Your task to perform on an android device: delete the emails in spam in the gmail app Image 0: 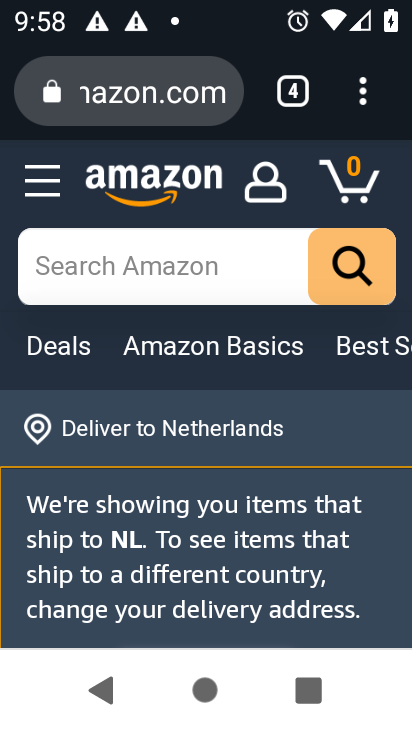
Step 0: click (365, 98)
Your task to perform on an android device: delete the emails in spam in the gmail app Image 1: 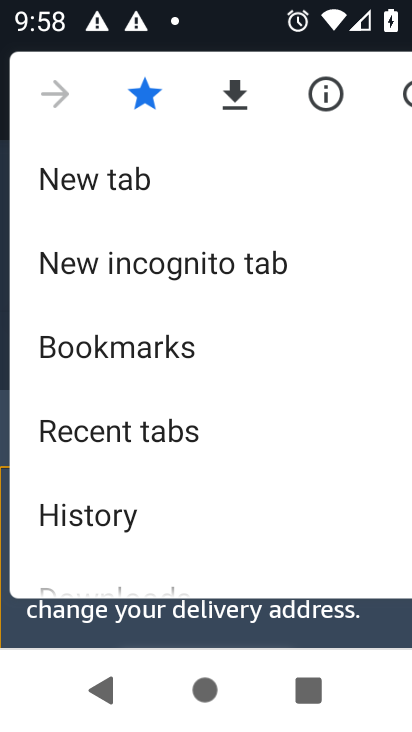
Step 1: click (123, 504)
Your task to perform on an android device: delete the emails in spam in the gmail app Image 2: 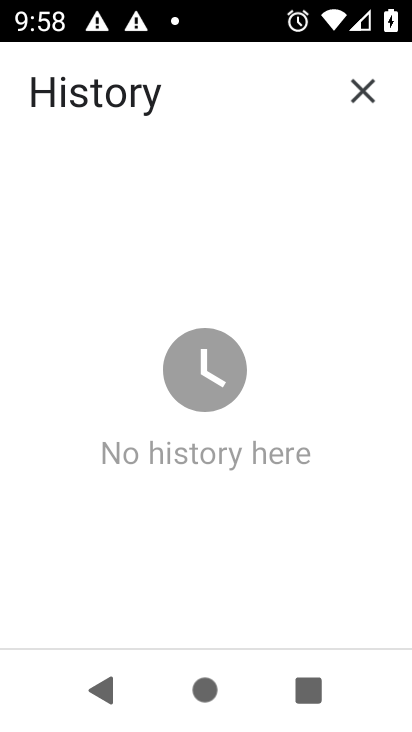
Step 2: press home button
Your task to perform on an android device: delete the emails in spam in the gmail app Image 3: 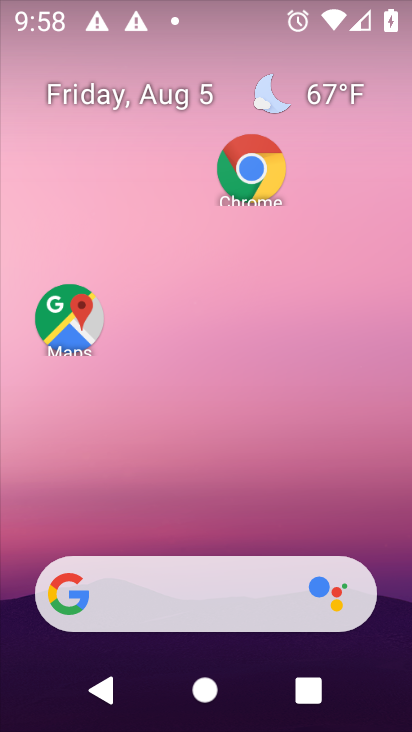
Step 3: drag from (187, 510) to (150, 168)
Your task to perform on an android device: delete the emails in spam in the gmail app Image 4: 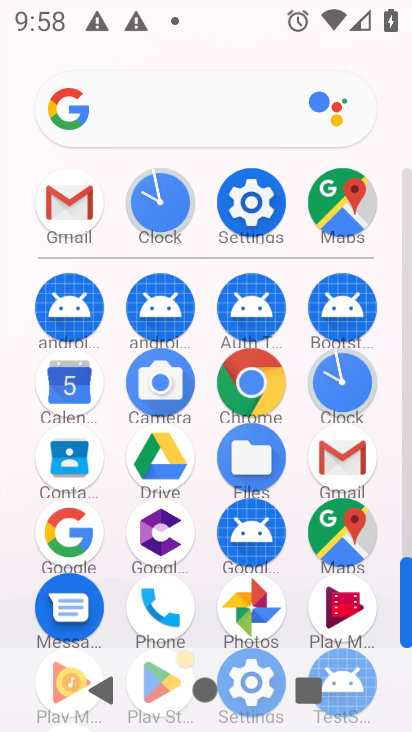
Step 4: click (77, 196)
Your task to perform on an android device: delete the emails in spam in the gmail app Image 5: 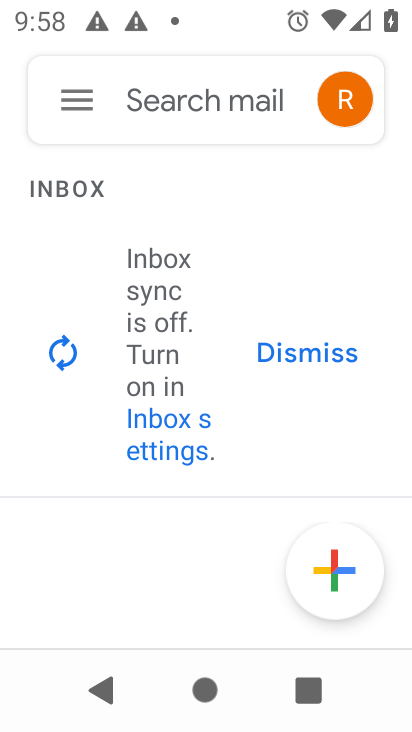
Step 5: click (77, 101)
Your task to perform on an android device: delete the emails in spam in the gmail app Image 6: 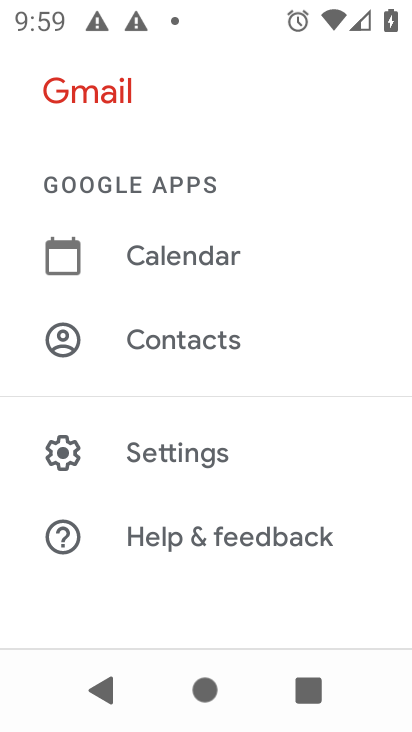
Step 6: task complete